Your task to perform on an android device: Search for pizza restaurants on Maps Image 0: 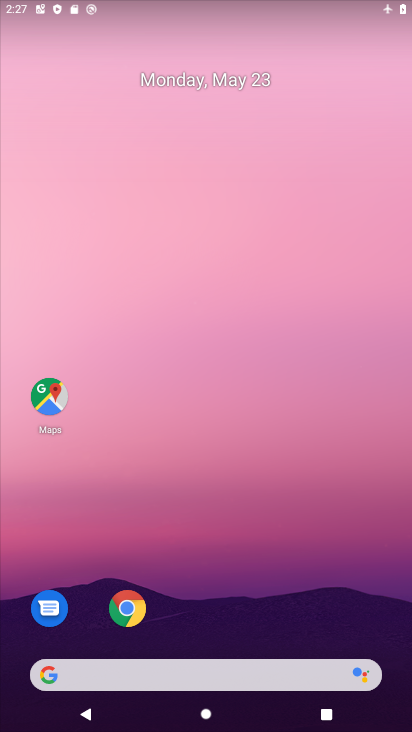
Step 0: click (35, 400)
Your task to perform on an android device: Search for pizza restaurants on Maps Image 1: 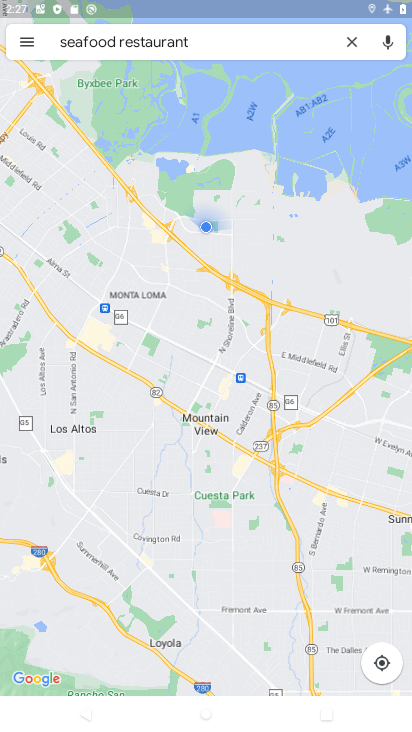
Step 1: click (347, 42)
Your task to perform on an android device: Search for pizza restaurants on Maps Image 2: 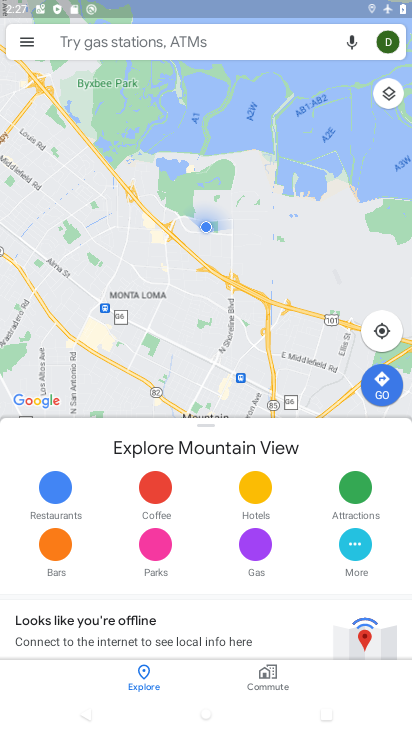
Step 2: click (250, 54)
Your task to perform on an android device: Search for pizza restaurants on Maps Image 3: 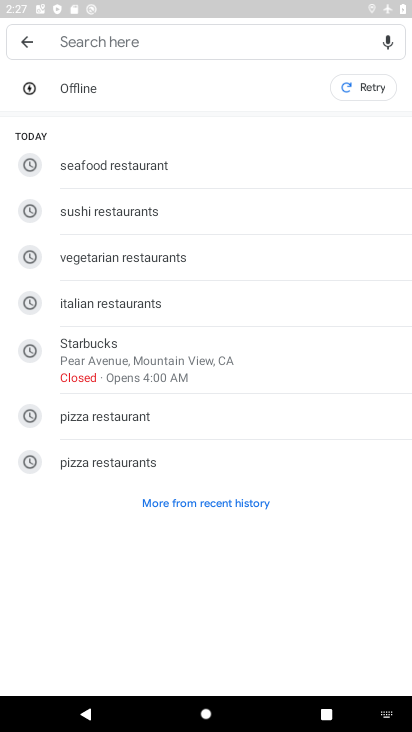
Step 3: click (69, 453)
Your task to perform on an android device: Search for pizza restaurants on Maps Image 4: 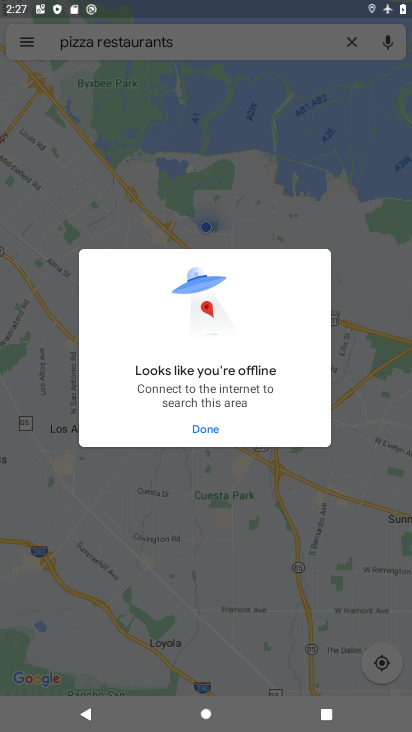
Step 4: task complete